Your task to perform on an android device: turn off wifi Image 0: 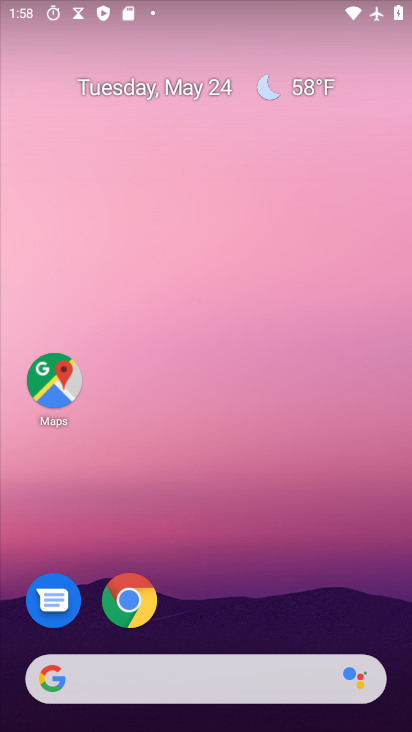
Step 0: drag from (295, 600) to (230, 46)
Your task to perform on an android device: turn off wifi Image 1: 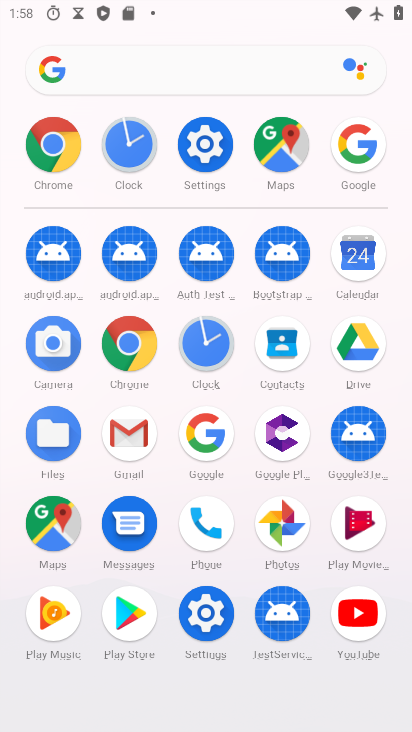
Step 1: click (214, 606)
Your task to perform on an android device: turn off wifi Image 2: 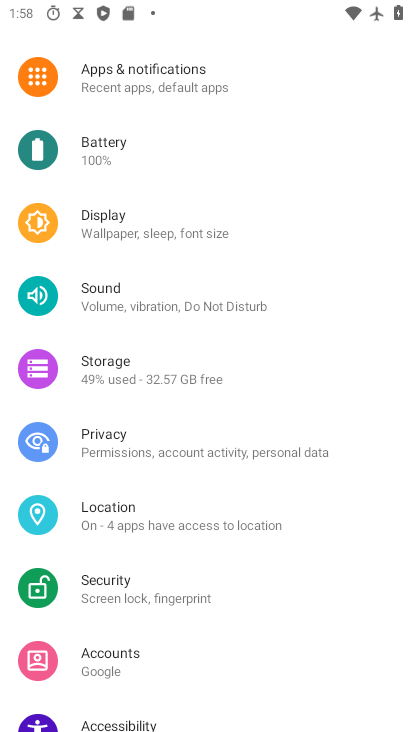
Step 2: drag from (226, 147) to (227, 656)
Your task to perform on an android device: turn off wifi Image 3: 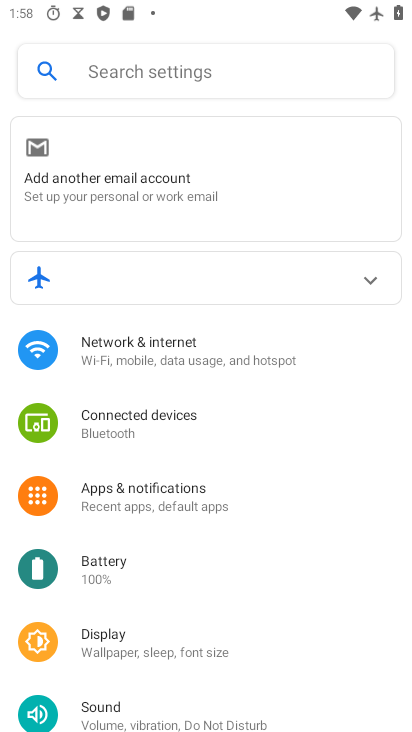
Step 3: click (214, 345)
Your task to perform on an android device: turn off wifi Image 4: 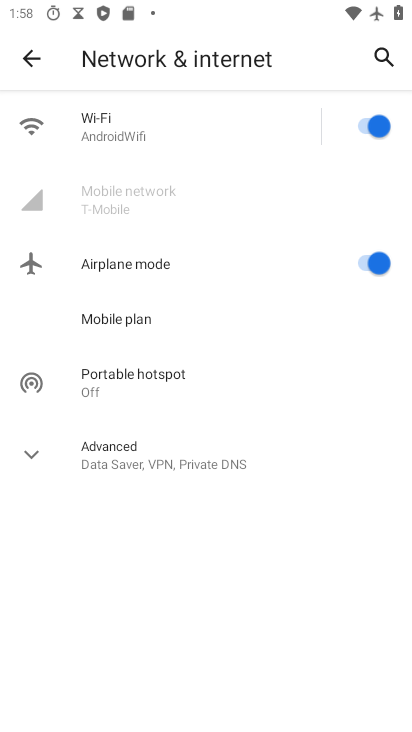
Step 4: click (369, 125)
Your task to perform on an android device: turn off wifi Image 5: 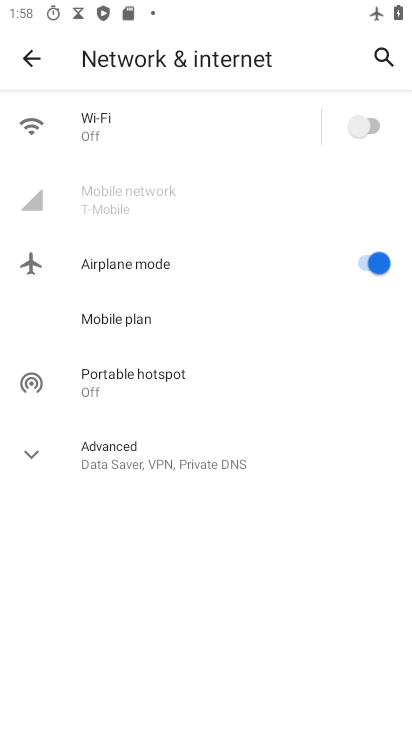
Step 5: task complete